Your task to perform on an android device: Open the calendar and show me this week's events? Image 0: 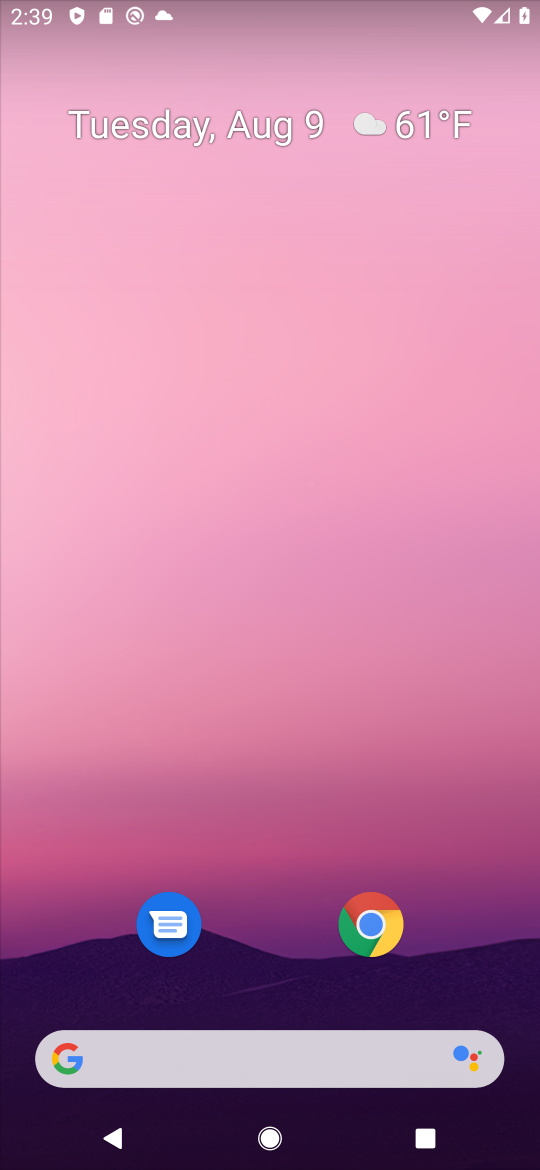
Step 0: drag from (277, 919) to (383, 29)
Your task to perform on an android device: Open the calendar and show me this week's events? Image 1: 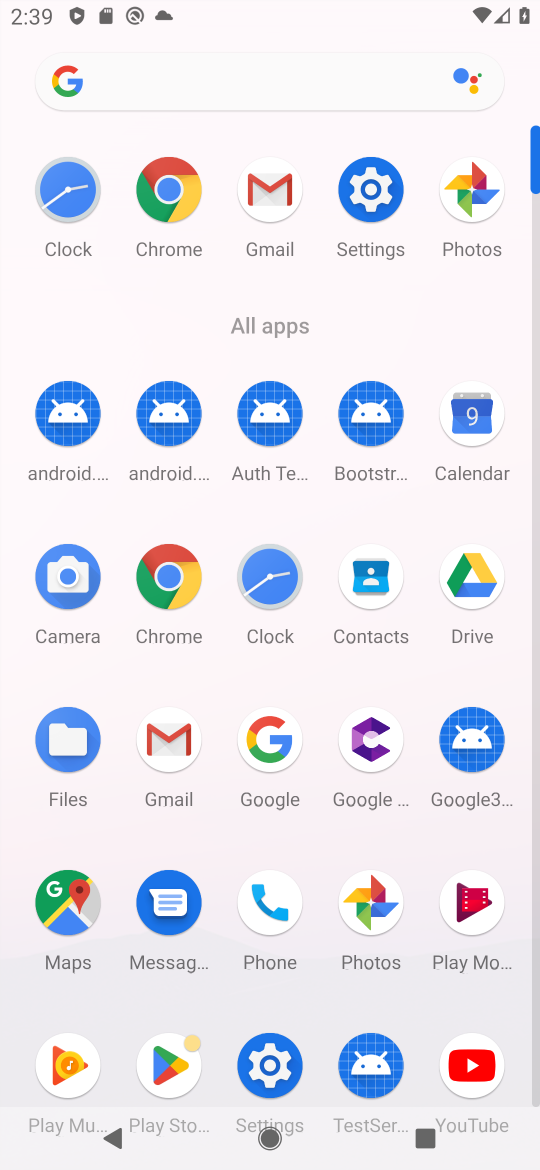
Step 1: click (478, 419)
Your task to perform on an android device: Open the calendar and show me this week's events? Image 2: 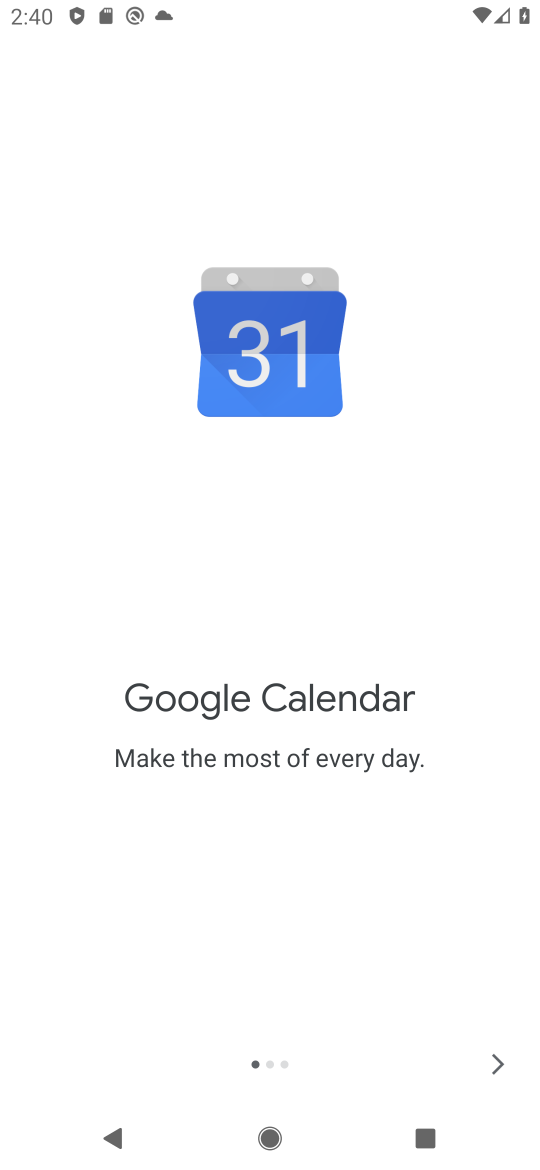
Step 2: click (495, 1062)
Your task to perform on an android device: Open the calendar and show me this week's events? Image 3: 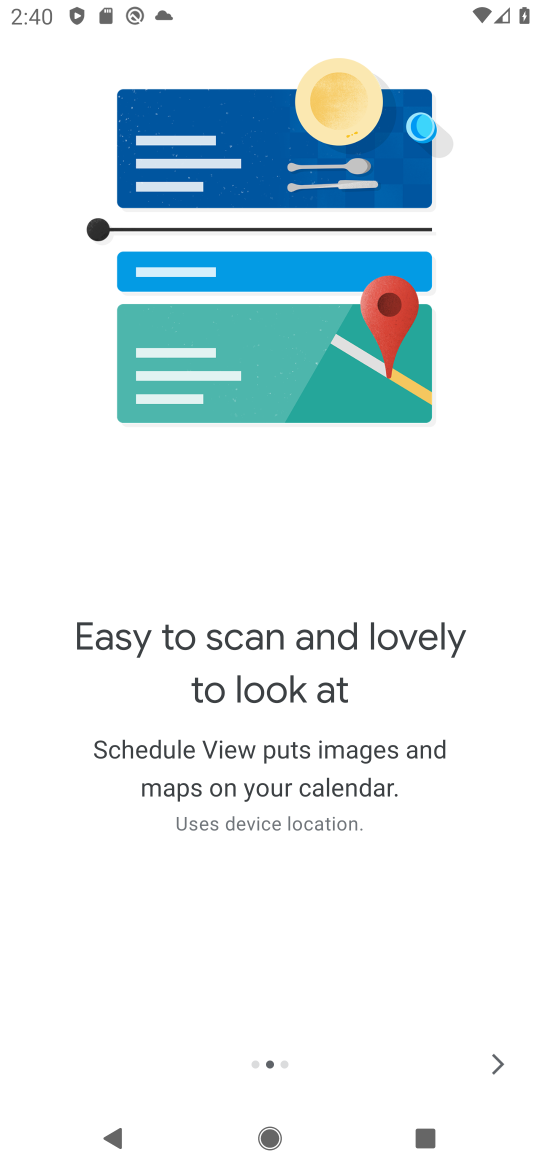
Step 3: click (495, 1062)
Your task to perform on an android device: Open the calendar and show me this week's events? Image 4: 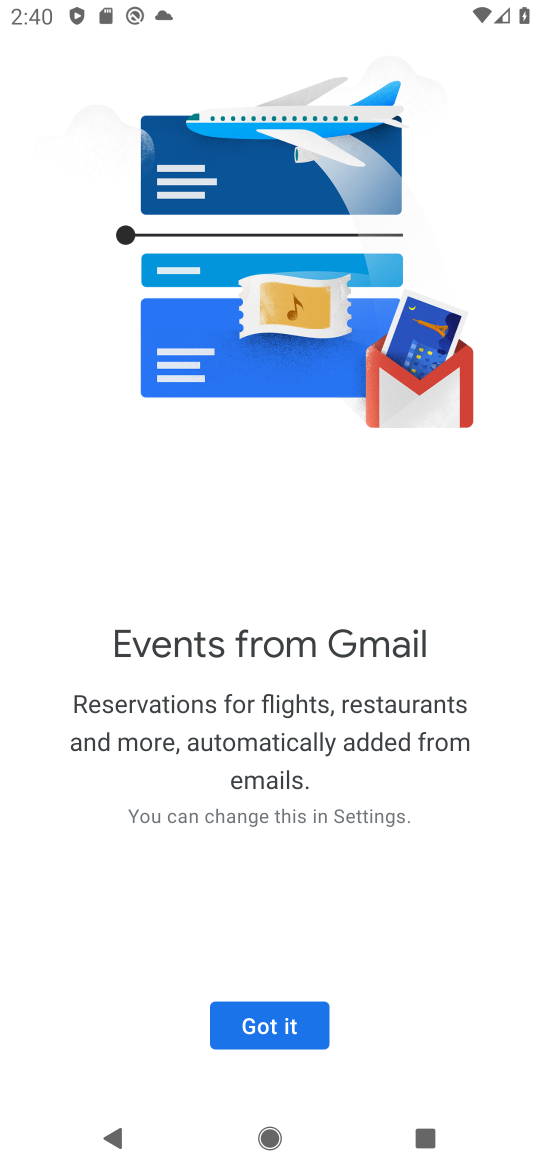
Step 4: click (316, 1035)
Your task to perform on an android device: Open the calendar and show me this week's events? Image 5: 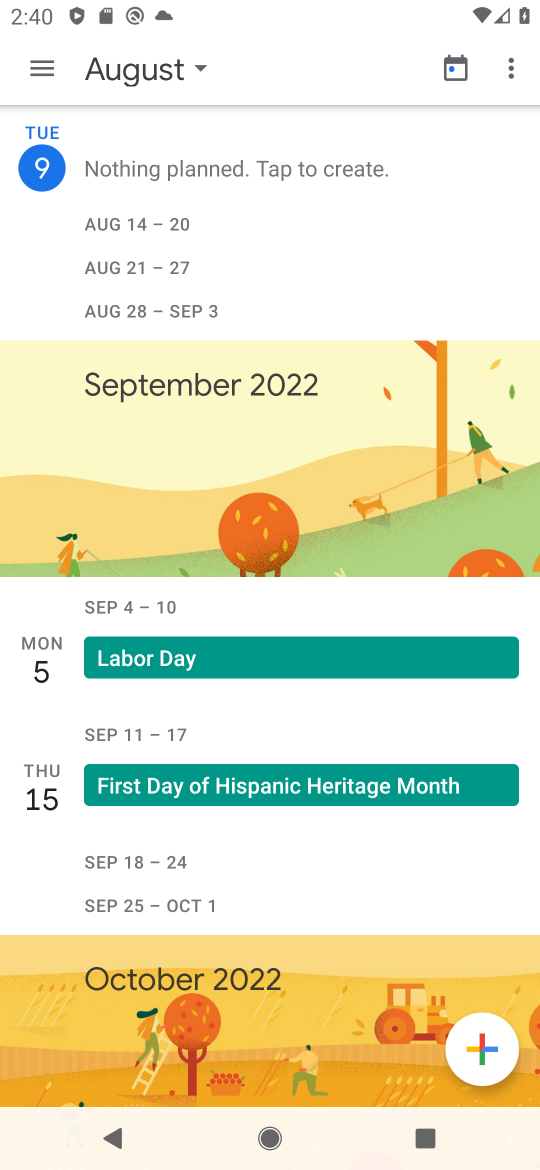
Step 5: click (51, 64)
Your task to perform on an android device: Open the calendar and show me this week's events? Image 6: 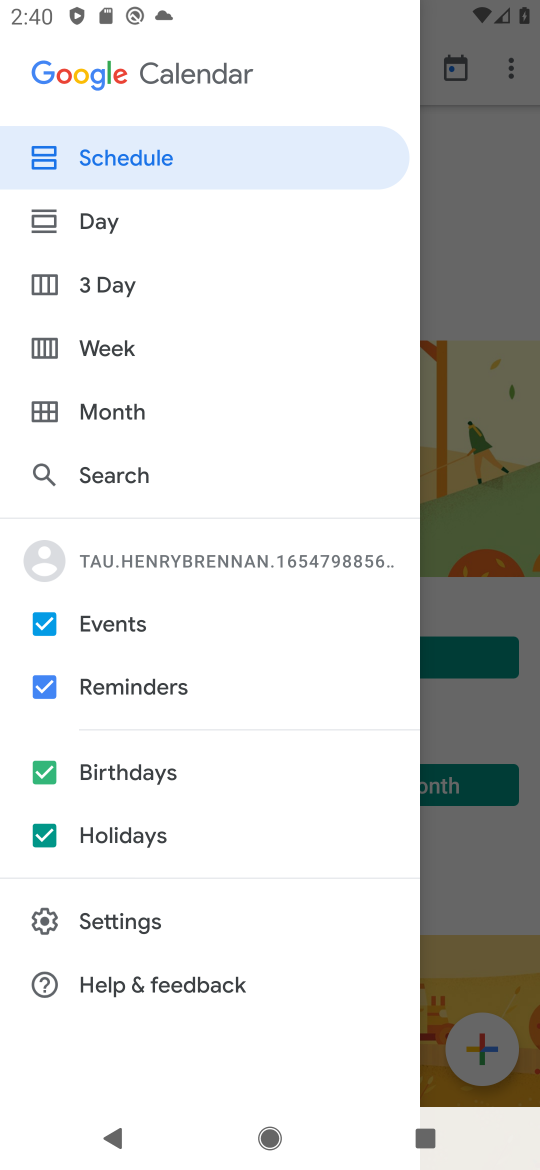
Step 6: click (41, 343)
Your task to perform on an android device: Open the calendar and show me this week's events? Image 7: 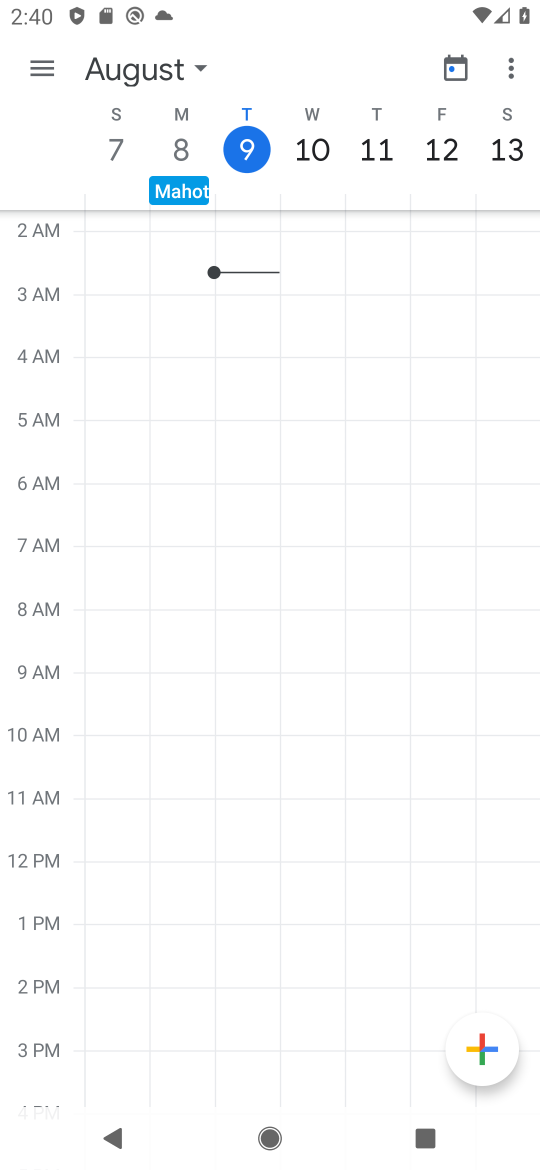
Step 7: task complete